Your task to perform on an android device: Open display settings Image 0: 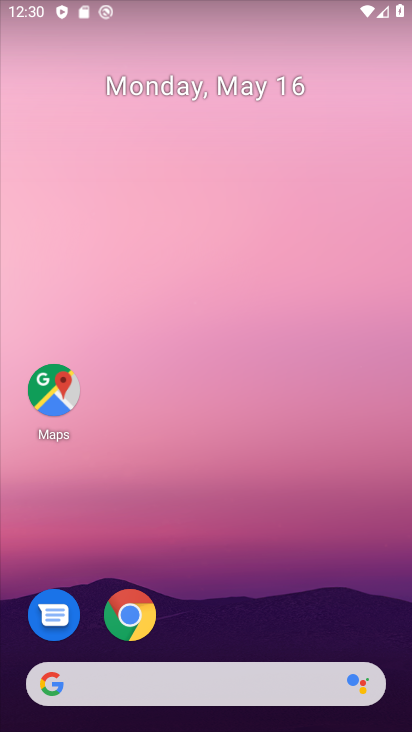
Step 0: drag from (279, 599) to (236, 125)
Your task to perform on an android device: Open display settings Image 1: 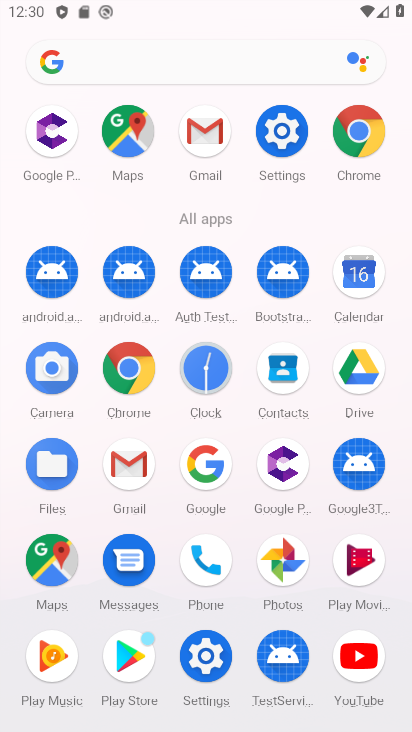
Step 1: click (297, 130)
Your task to perform on an android device: Open display settings Image 2: 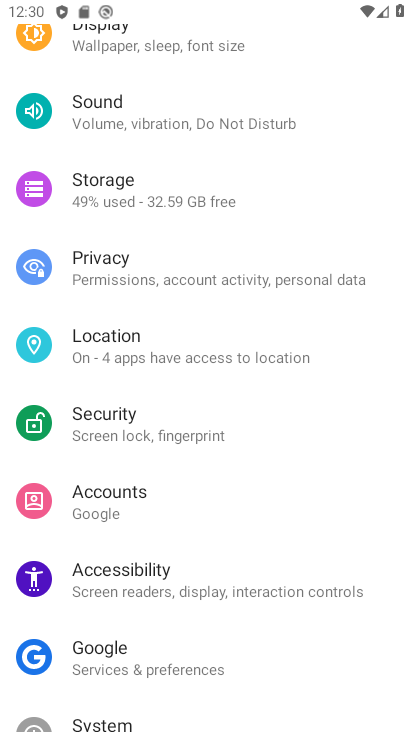
Step 2: drag from (244, 490) to (287, 728)
Your task to perform on an android device: Open display settings Image 3: 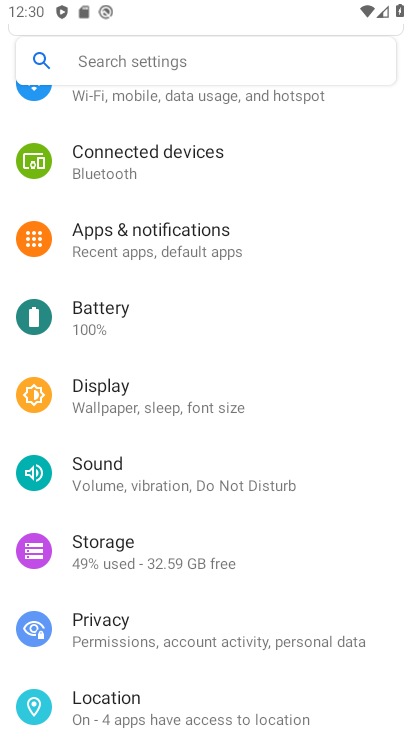
Step 3: click (198, 399)
Your task to perform on an android device: Open display settings Image 4: 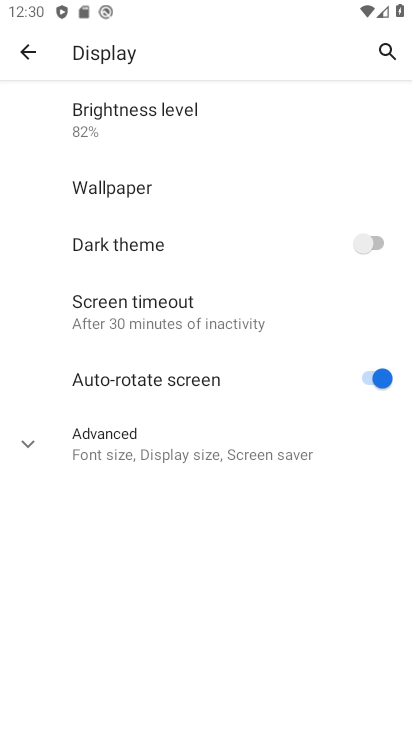
Step 4: task complete